Your task to perform on an android device: What's on my calendar today? Image 0: 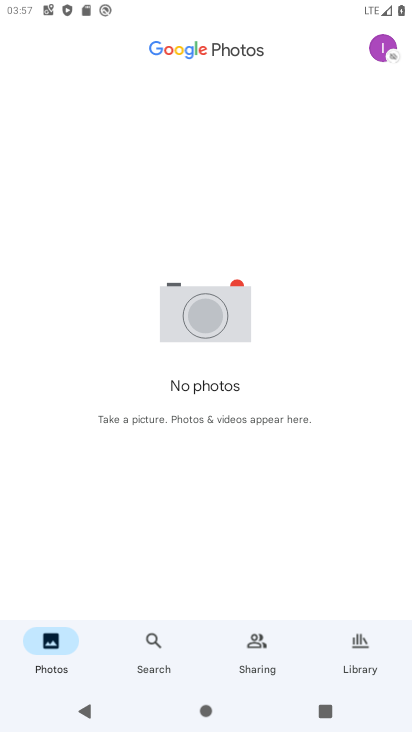
Step 0: press home button
Your task to perform on an android device: What's on my calendar today? Image 1: 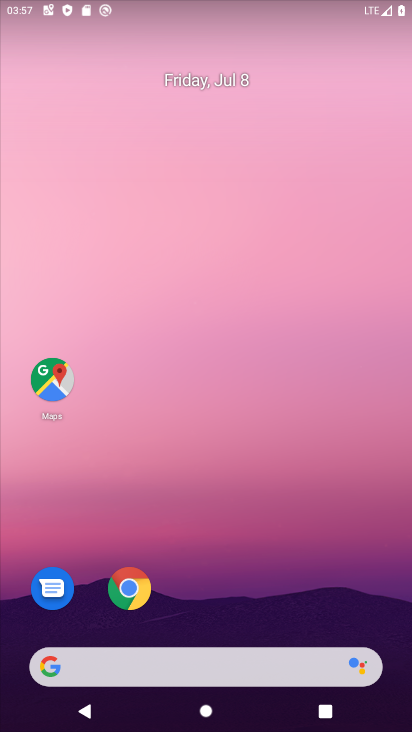
Step 1: drag from (209, 609) to (187, 108)
Your task to perform on an android device: What's on my calendar today? Image 2: 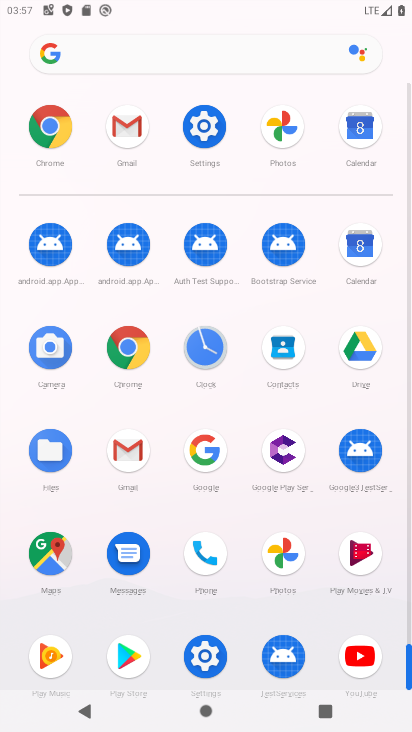
Step 2: click (355, 260)
Your task to perform on an android device: What's on my calendar today? Image 3: 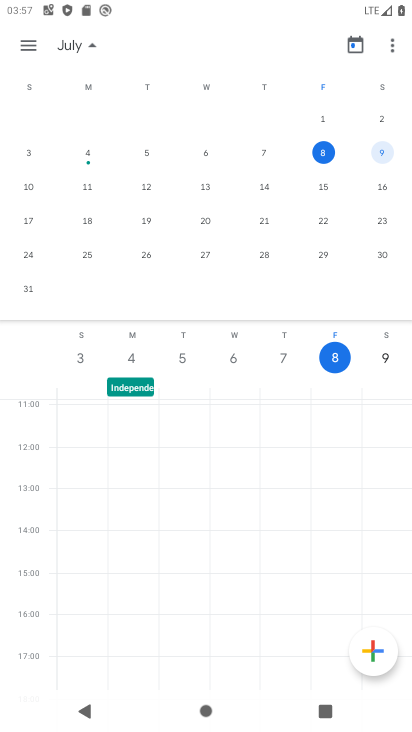
Step 3: task complete